Your task to perform on an android device: manage bookmarks in the chrome app Image 0: 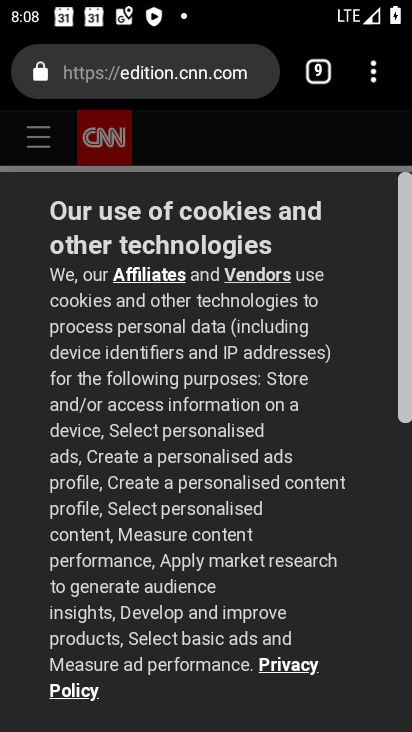
Step 0: drag from (283, 322) to (410, 83)
Your task to perform on an android device: manage bookmarks in the chrome app Image 1: 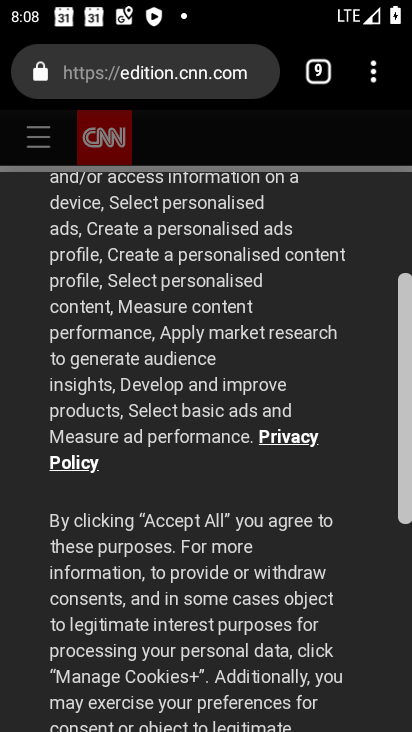
Step 1: click (367, 66)
Your task to perform on an android device: manage bookmarks in the chrome app Image 2: 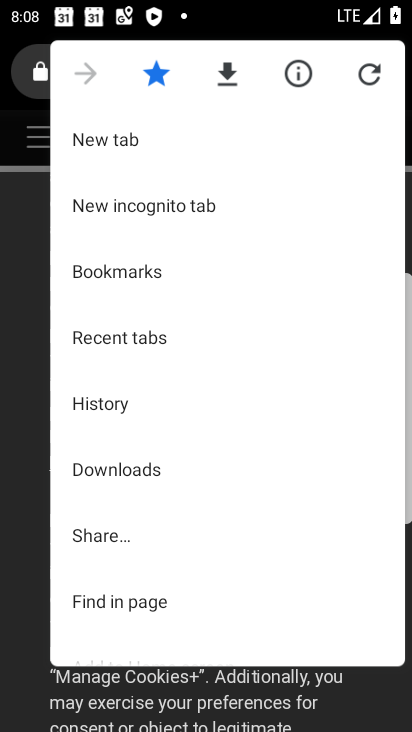
Step 2: click (126, 276)
Your task to perform on an android device: manage bookmarks in the chrome app Image 3: 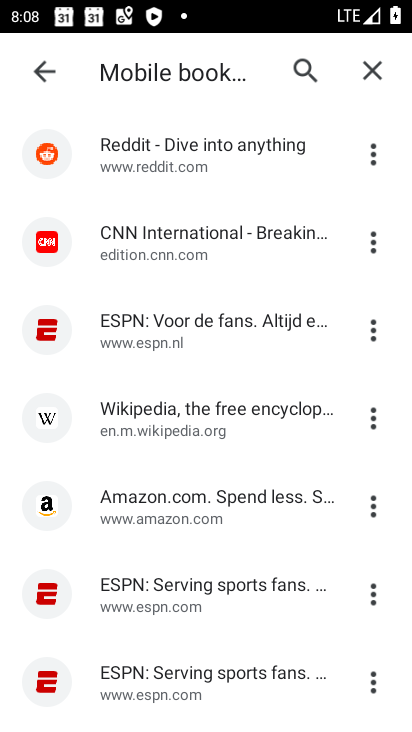
Step 3: click (371, 152)
Your task to perform on an android device: manage bookmarks in the chrome app Image 4: 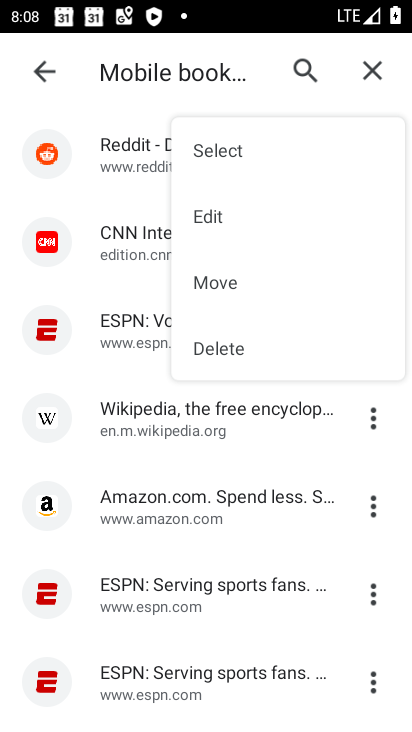
Step 4: click (216, 229)
Your task to perform on an android device: manage bookmarks in the chrome app Image 5: 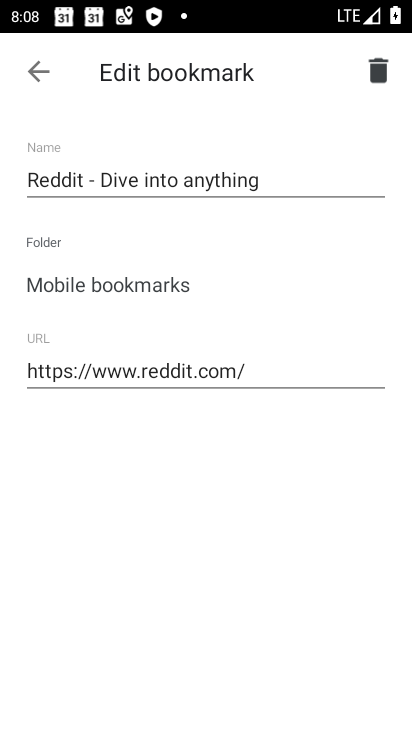
Step 5: task complete